Your task to perform on an android device: toggle pop-ups in chrome Image 0: 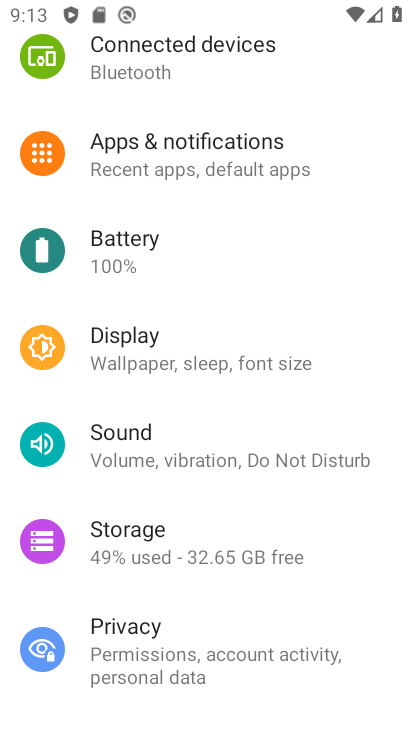
Step 0: press home button
Your task to perform on an android device: toggle pop-ups in chrome Image 1: 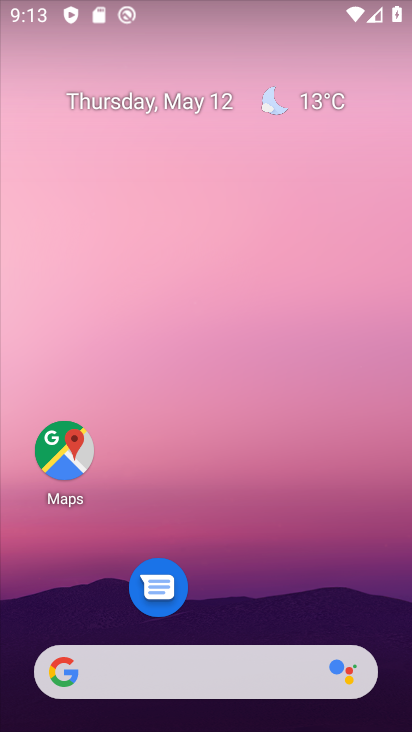
Step 1: drag from (254, 640) to (205, 181)
Your task to perform on an android device: toggle pop-ups in chrome Image 2: 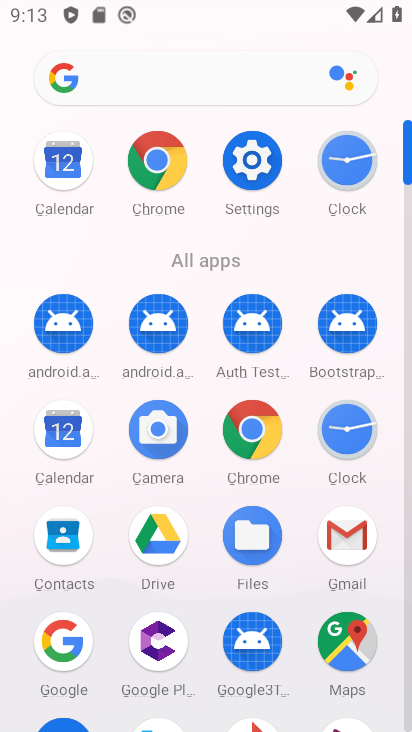
Step 2: click (259, 421)
Your task to perform on an android device: toggle pop-ups in chrome Image 3: 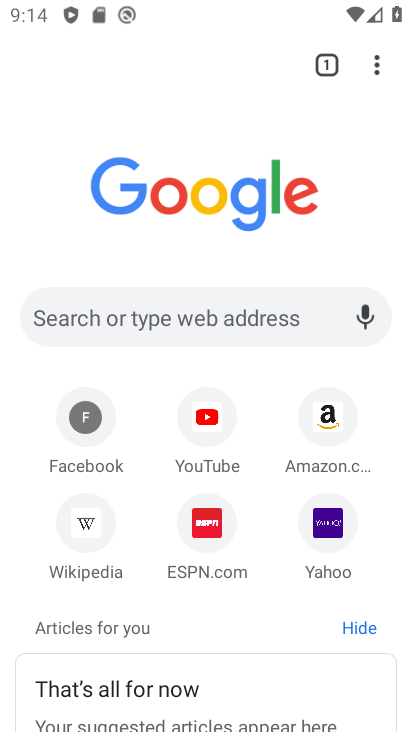
Step 3: click (372, 61)
Your task to perform on an android device: toggle pop-ups in chrome Image 4: 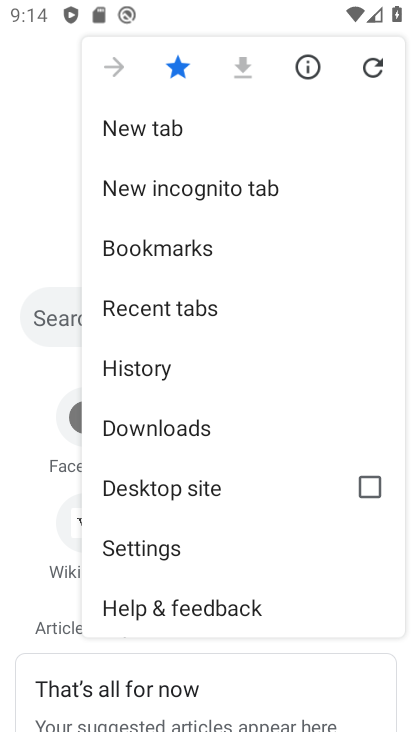
Step 4: click (194, 526)
Your task to perform on an android device: toggle pop-ups in chrome Image 5: 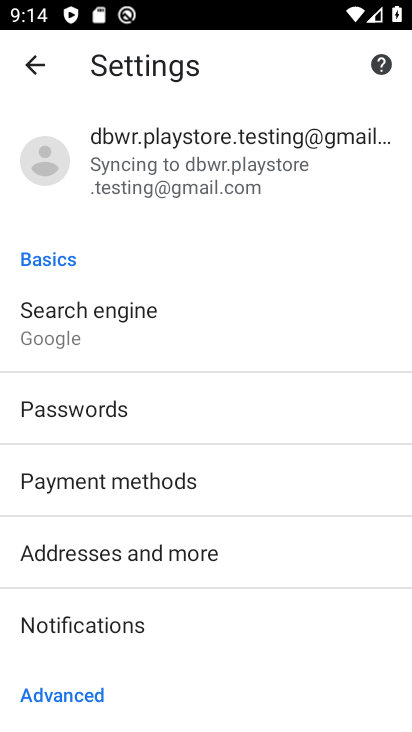
Step 5: drag from (128, 542) to (127, 46)
Your task to perform on an android device: toggle pop-ups in chrome Image 6: 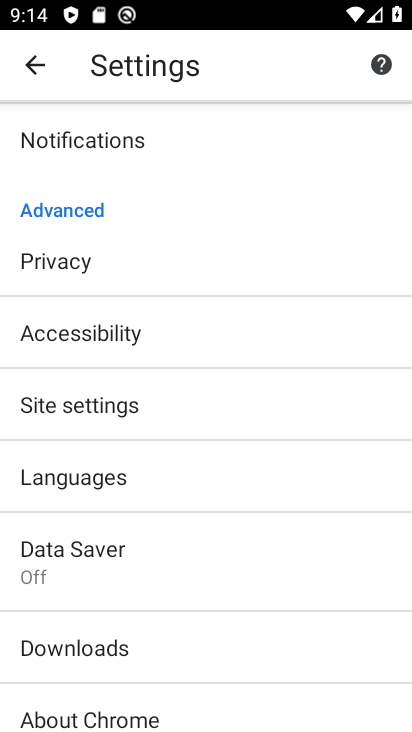
Step 6: click (77, 409)
Your task to perform on an android device: toggle pop-ups in chrome Image 7: 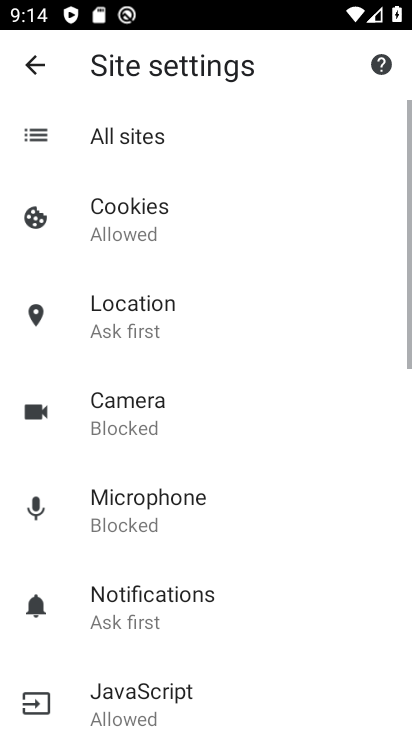
Step 7: drag from (133, 614) to (88, 109)
Your task to perform on an android device: toggle pop-ups in chrome Image 8: 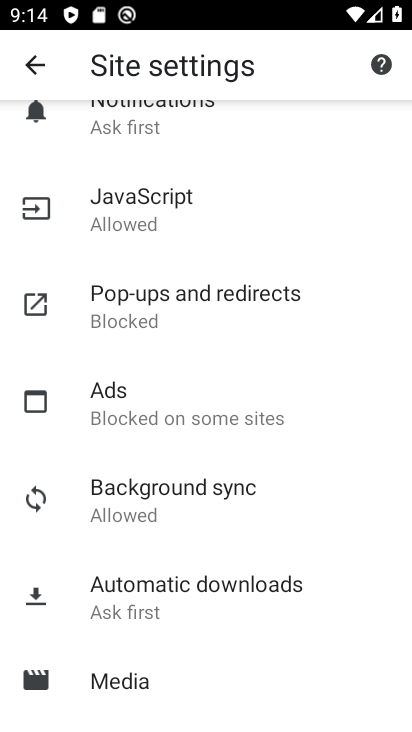
Step 8: click (118, 313)
Your task to perform on an android device: toggle pop-ups in chrome Image 9: 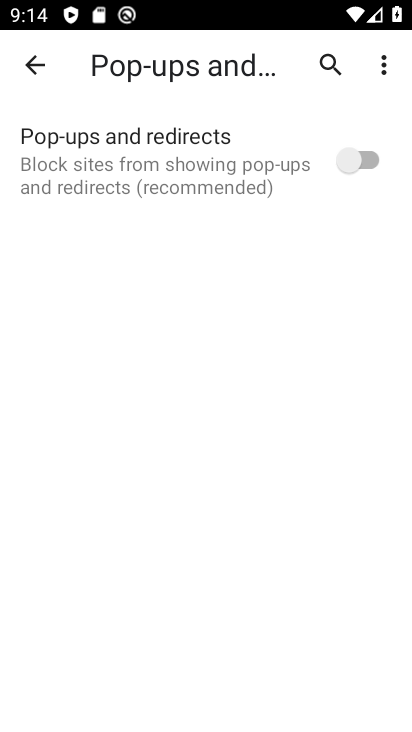
Step 9: click (342, 171)
Your task to perform on an android device: toggle pop-ups in chrome Image 10: 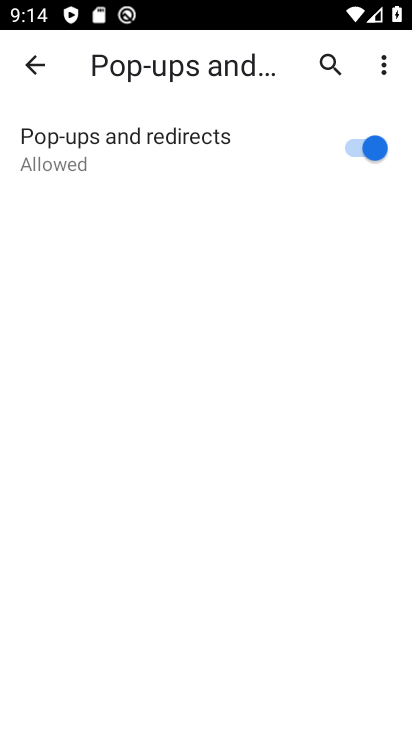
Step 10: task complete